Your task to perform on an android device: Open calendar and show me the fourth week of next month Image 0: 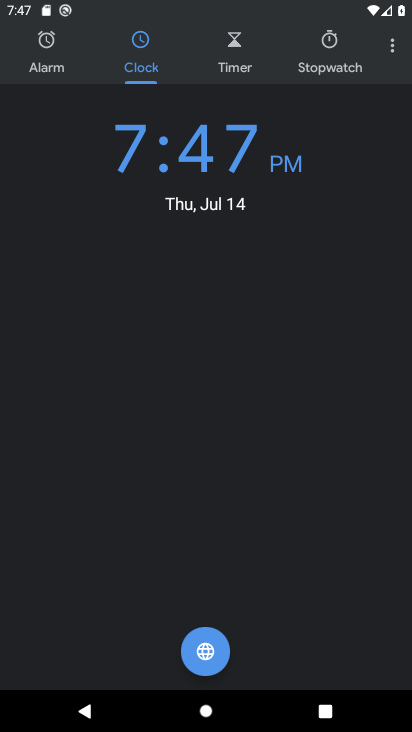
Step 0: press home button
Your task to perform on an android device: Open calendar and show me the fourth week of next month Image 1: 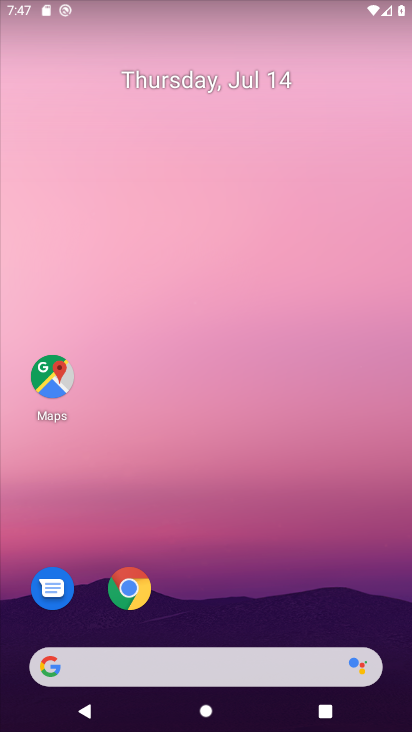
Step 1: drag from (329, 609) to (363, 125)
Your task to perform on an android device: Open calendar and show me the fourth week of next month Image 2: 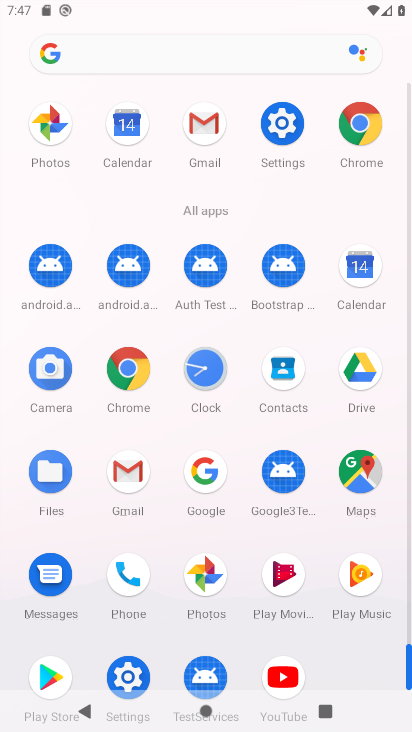
Step 2: click (361, 276)
Your task to perform on an android device: Open calendar and show me the fourth week of next month Image 3: 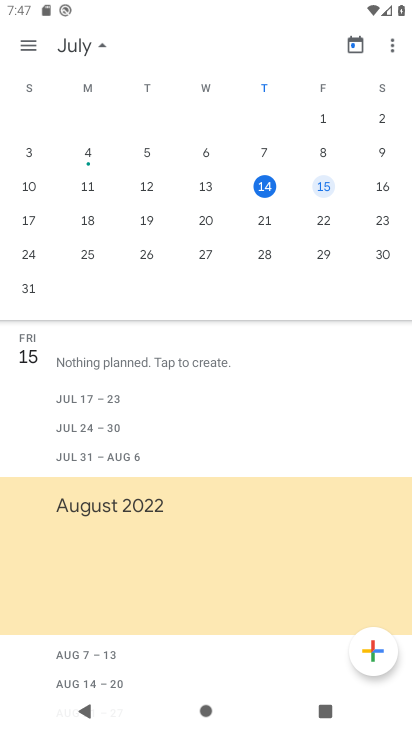
Step 3: drag from (391, 133) to (1, 117)
Your task to perform on an android device: Open calendar and show me the fourth week of next month Image 4: 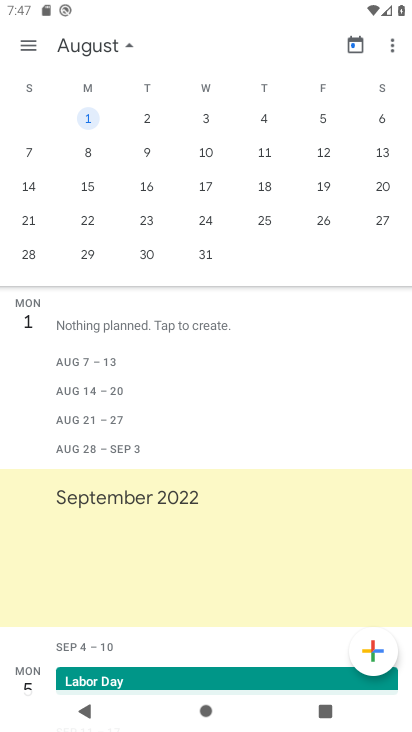
Step 4: click (87, 217)
Your task to perform on an android device: Open calendar and show me the fourth week of next month Image 5: 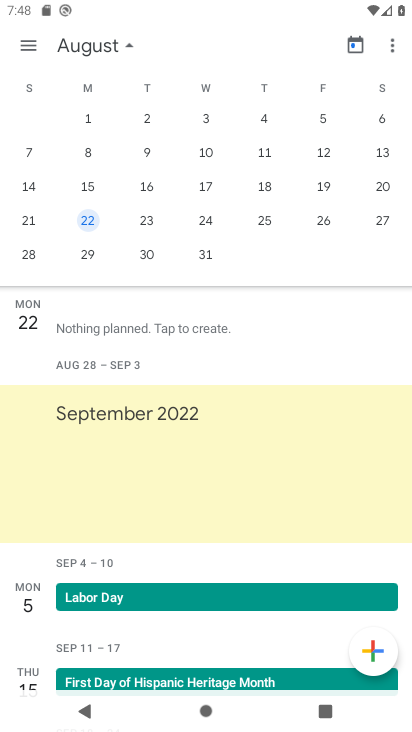
Step 5: task complete